Your task to perform on an android device: turn off priority inbox in the gmail app Image 0: 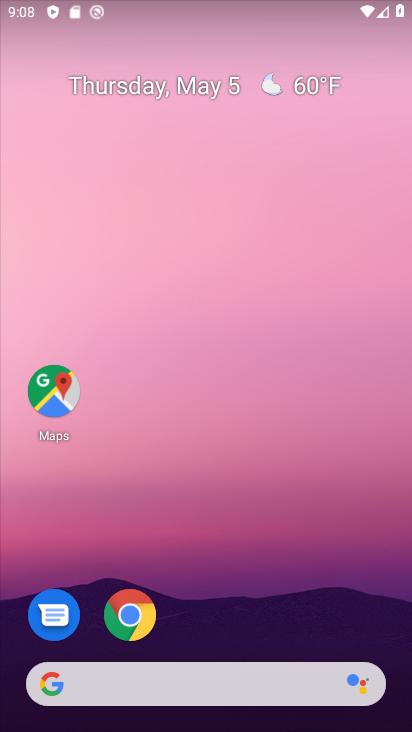
Step 0: drag from (233, 611) to (266, 156)
Your task to perform on an android device: turn off priority inbox in the gmail app Image 1: 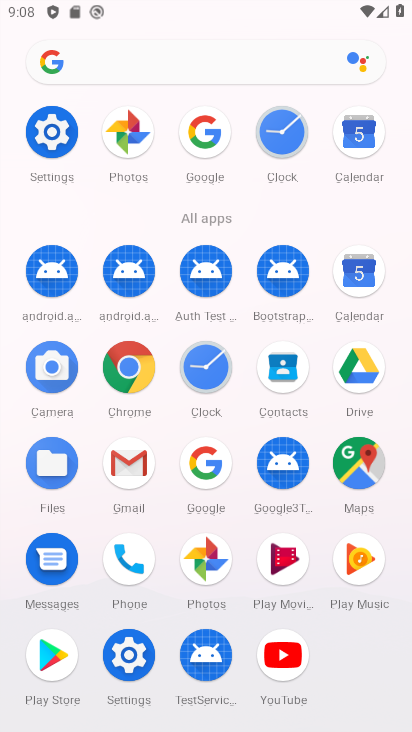
Step 1: click (129, 458)
Your task to perform on an android device: turn off priority inbox in the gmail app Image 2: 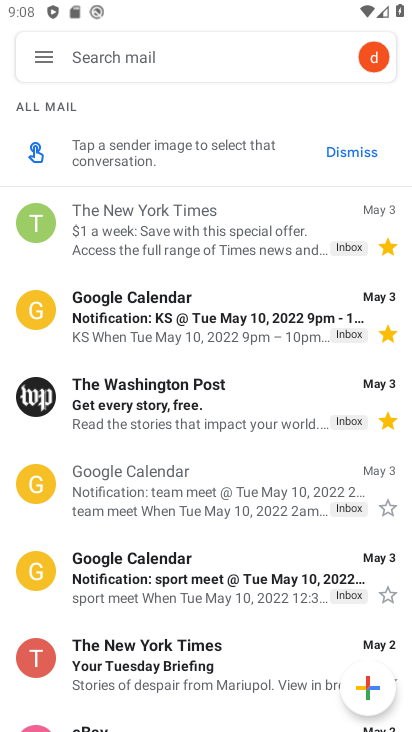
Step 2: click (39, 57)
Your task to perform on an android device: turn off priority inbox in the gmail app Image 3: 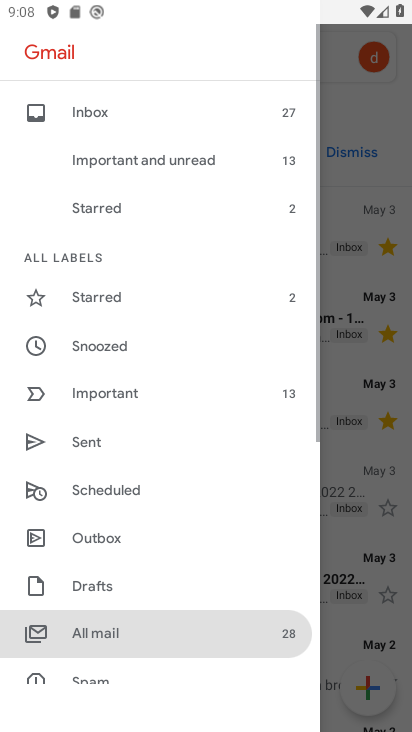
Step 3: drag from (141, 570) to (190, 205)
Your task to perform on an android device: turn off priority inbox in the gmail app Image 4: 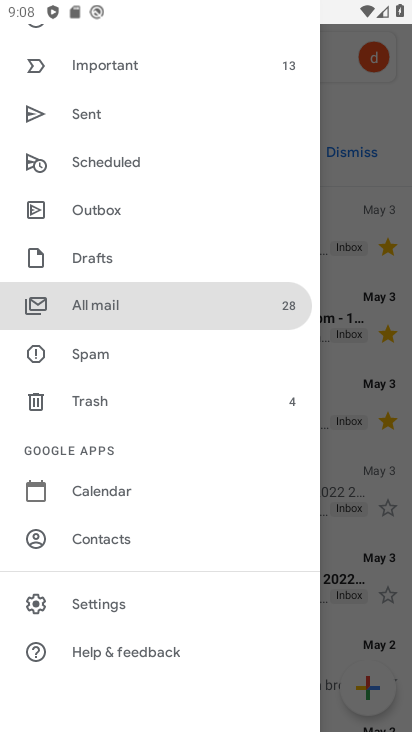
Step 4: click (117, 600)
Your task to perform on an android device: turn off priority inbox in the gmail app Image 5: 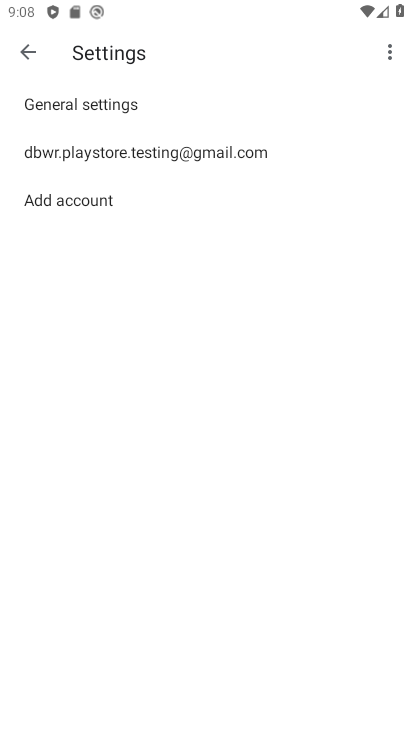
Step 5: click (173, 153)
Your task to perform on an android device: turn off priority inbox in the gmail app Image 6: 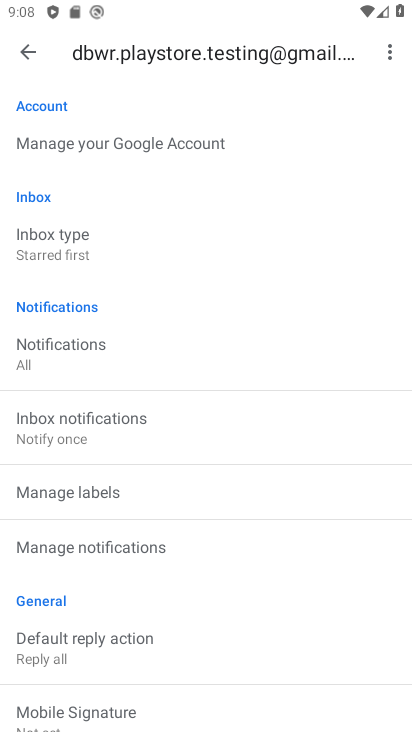
Step 6: drag from (164, 563) to (217, 83)
Your task to perform on an android device: turn off priority inbox in the gmail app Image 7: 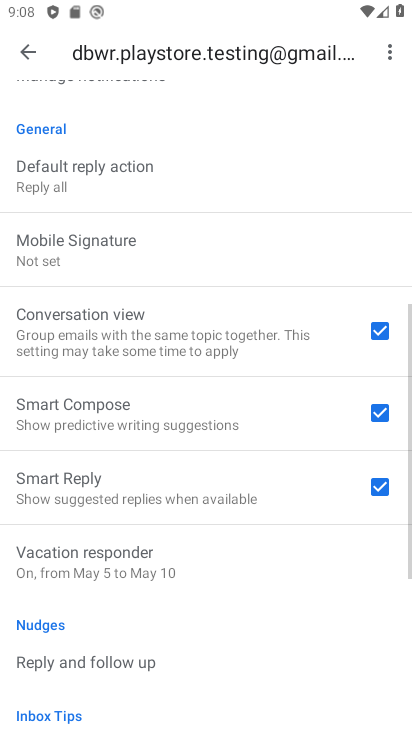
Step 7: drag from (179, 630) to (234, 188)
Your task to perform on an android device: turn off priority inbox in the gmail app Image 8: 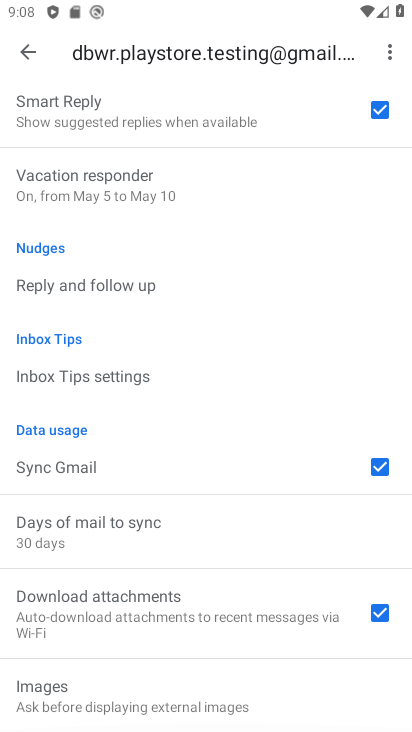
Step 8: drag from (184, 683) to (225, 662)
Your task to perform on an android device: turn off priority inbox in the gmail app Image 9: 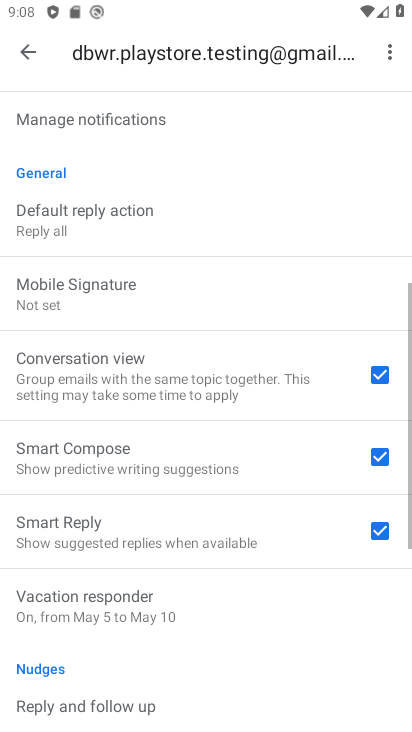
Step 9: drag from (103, 193) to (217, 650)
Your task to perform on an android device: turn off priority inbox in the gmail app Image 10: 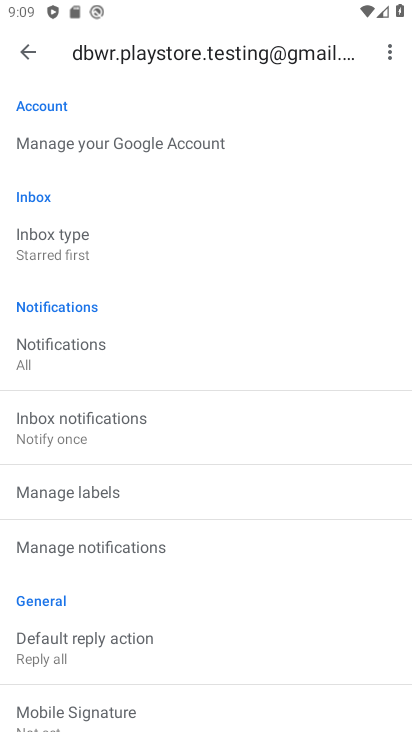
Step 10: drag from (78, 266) to (127, 521)
Your task to perform on an android device: turn off priority inbox in the gmail app Image 11: 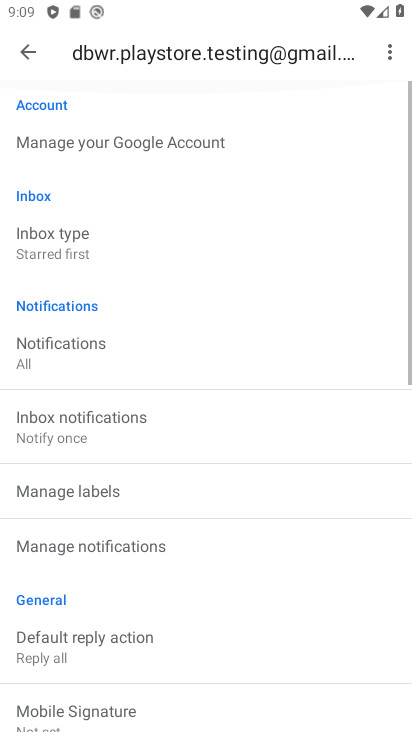
Step 11: click (76, 353)
Your task to perform on an android device: turn off priority inbox in the gmail app Image 12: 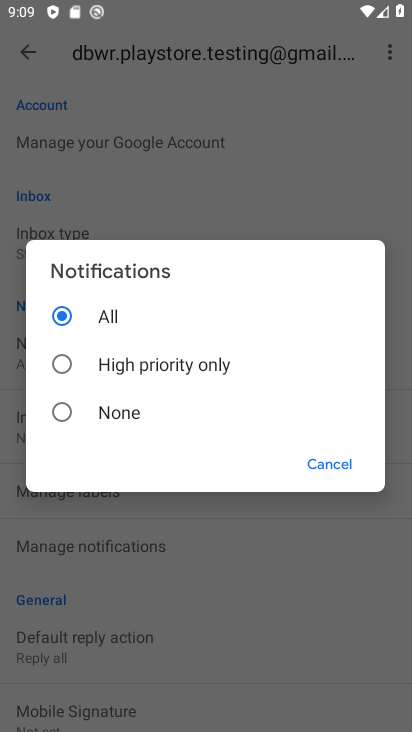
Step 12: click (309, 465)
Your task to perform on an android device: turn off priority inbox in the gmail app Image 13: 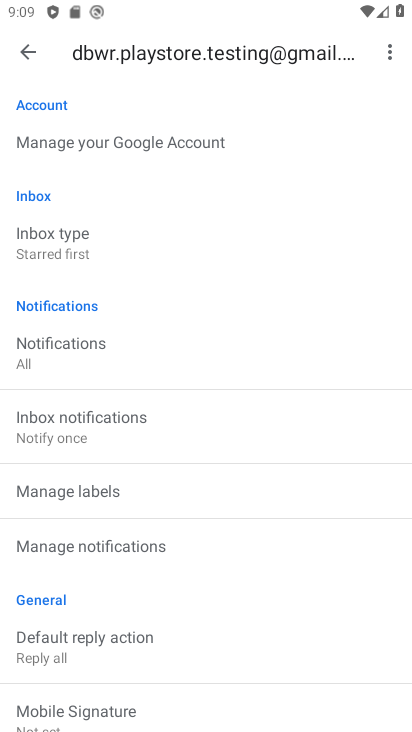
Step 13: click (60, 253)
Your task to perform on an android device: turn off priority inbox in the gmail app Image 14: 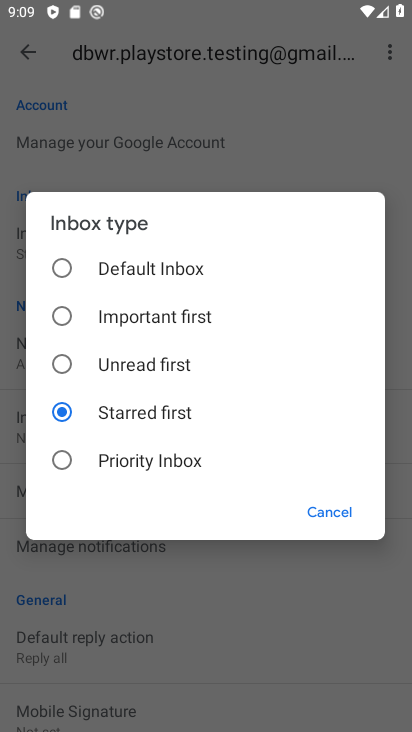
Step 14: click (314, 503)
Your task to perform on an android device: turn off priority inbox in the gmail app Image 15: 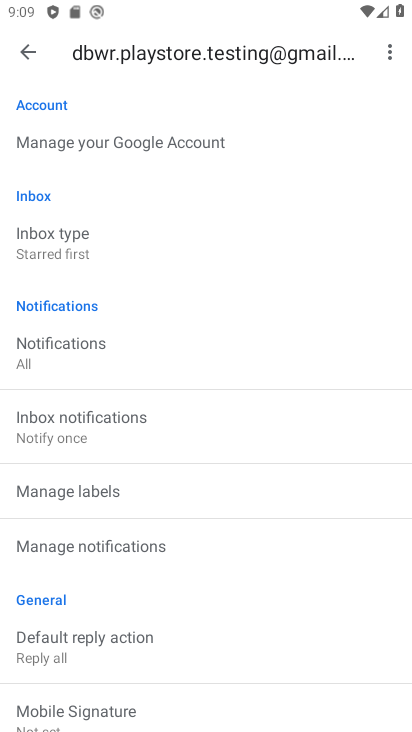
Step 15: task complete